Your task to perform on an android device: Go to location settings Image 0: 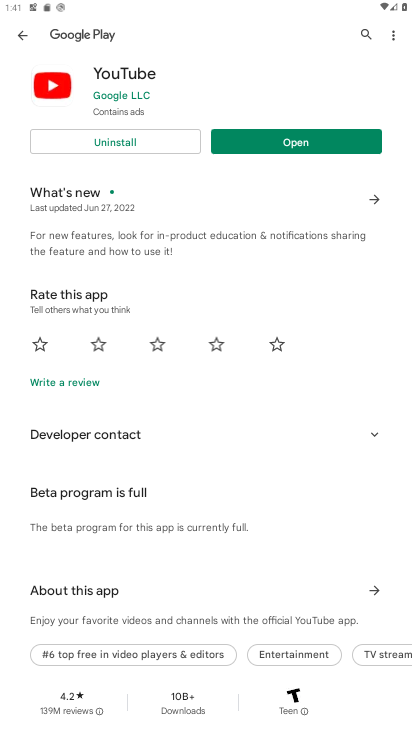
Step 0: drag from (213, 536) to (233, 356)
Your task to perform on an android device: Go to location settings Image 1: 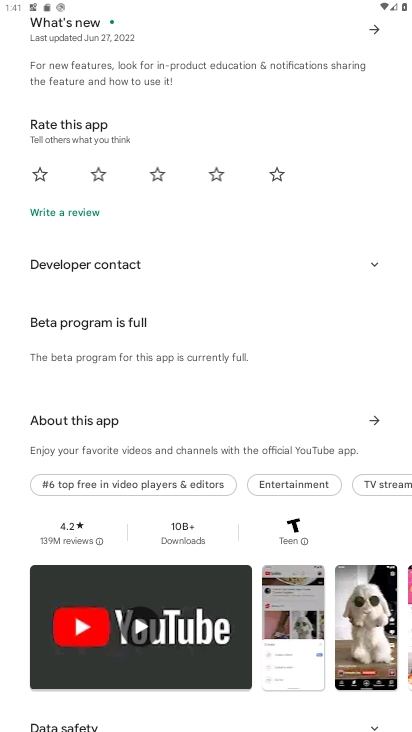
Step 1: drag from (232, 205) to (343, 638)
Your task to perform on an android device: Go to location settings Image 2: 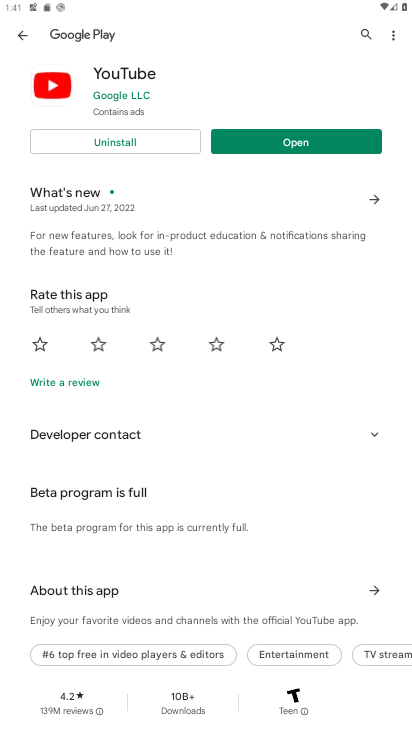
Step 2: drag from (220, 228) to (407, 643)
Your task to perform on an android device: Go to location settings Image 3: 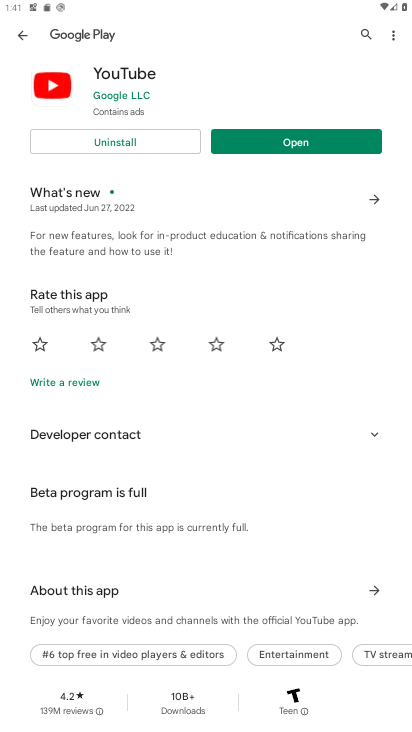
Step 3: drag from (97, 241) to (304, 664)
Your task to perform on an android device: Go to location settings Image 4: 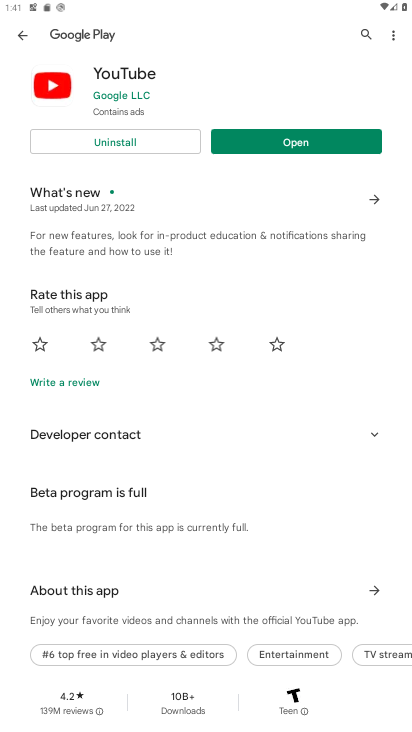
Step 4: press home button
Your task to perform on an android device: Go to location settings Image 5: 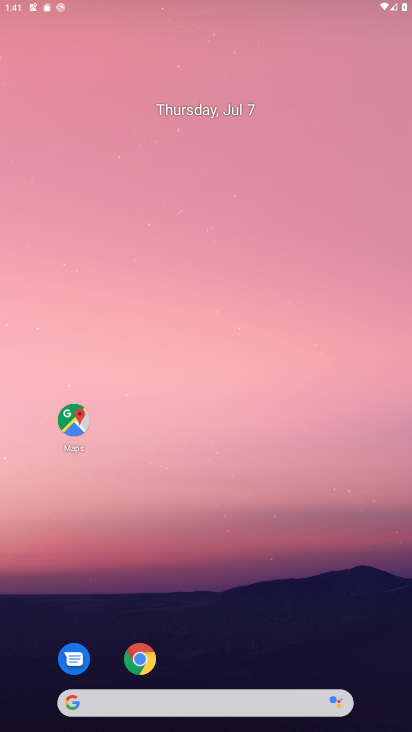
Step 5: drag from (181, 573) to (212, 1)
Your task to perform on an android device: Go to location settings Image 6: 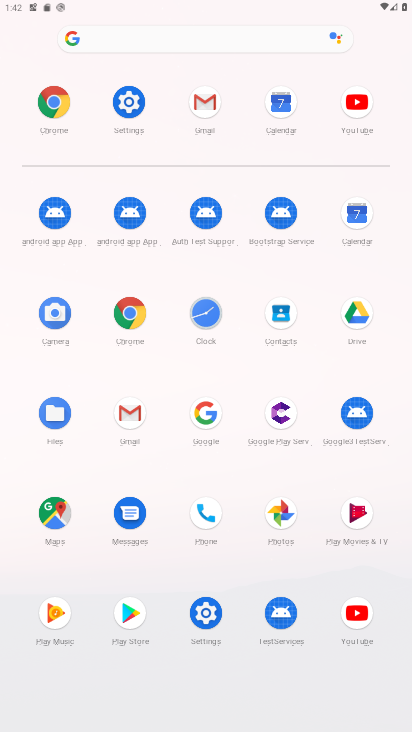
Step 6: click (132, 103)
Your task to perform on an android device: Go to location settings Image 7: 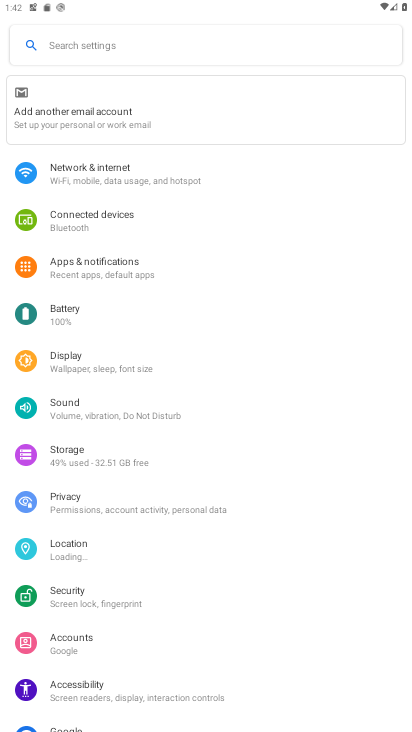
Step 7: click (108, 545)
Your task to perform on an android device: Go to location settings Image 8: 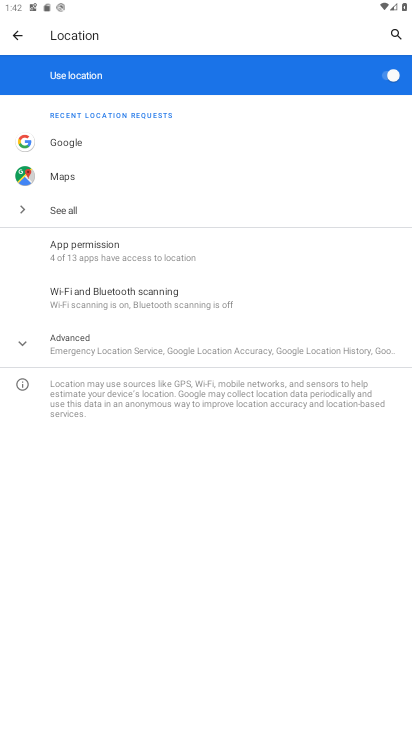
Step 8: click (87, 340)
Your task to perform on an android device: Go to location settings Image 9: 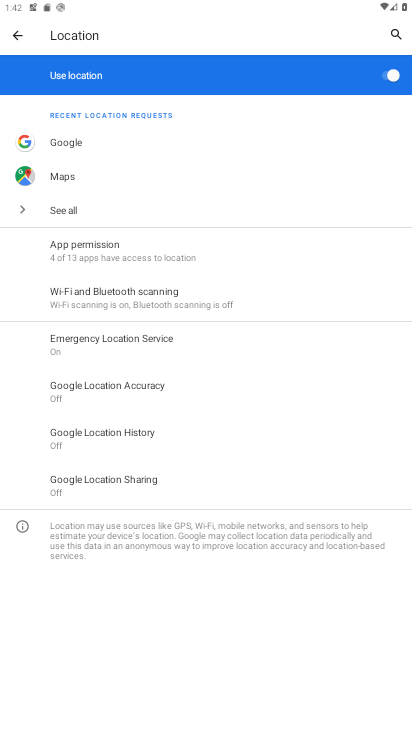
Step 9: task complete